Your task to perform on an android device: change the upload size in google photos Image 0: 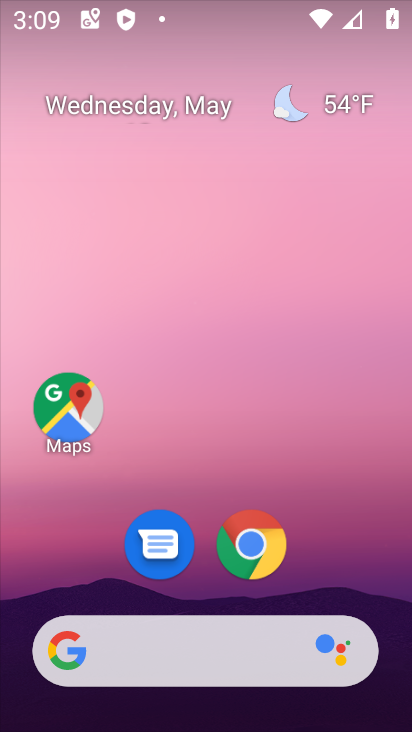
Step 0: drag from (354, 551) to (359, 140)
Your task to perform on an android device: change the upload size in google photos Image 1: 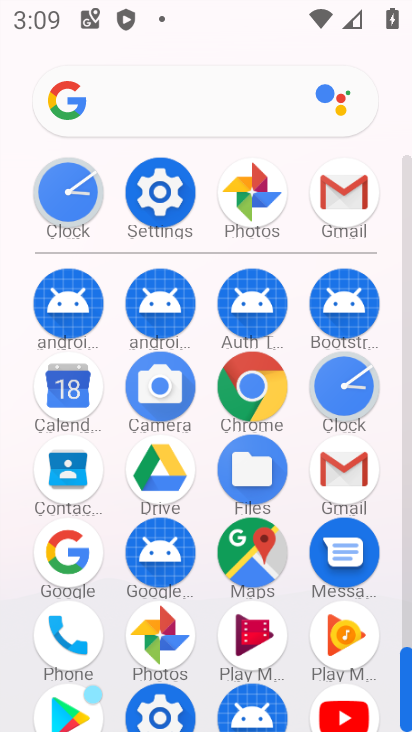
Step 1: click (266, 216)
Your task to perform on an android device: change the upload size in google photos Image 2: 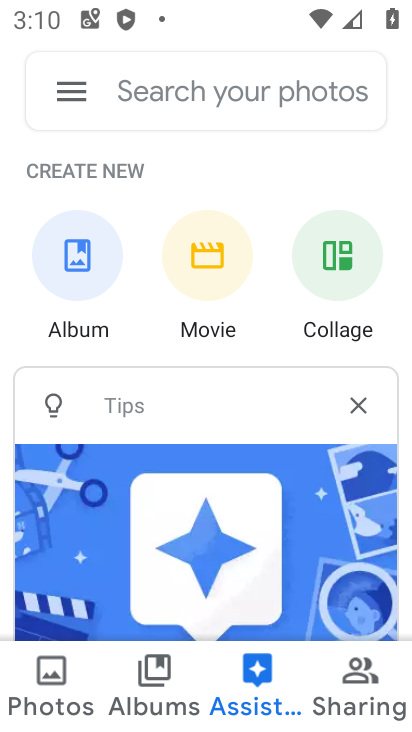
Step 2: click (76, 110)
Your task to perform on an android device: change the upload size in google photos Image 3: 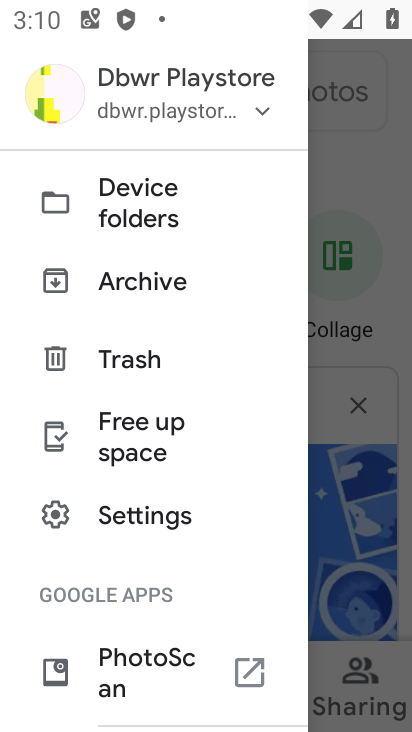
Step 3: click (143, 522)
Your task to perform on an android device: change the upload size in google photos Image 4: 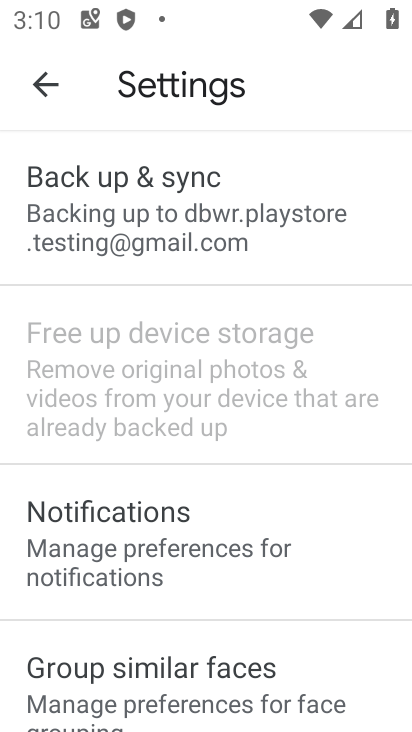
Step 4: click (184, 182)
Your task to perform on an android device: change the upload size in google photos Image 5: 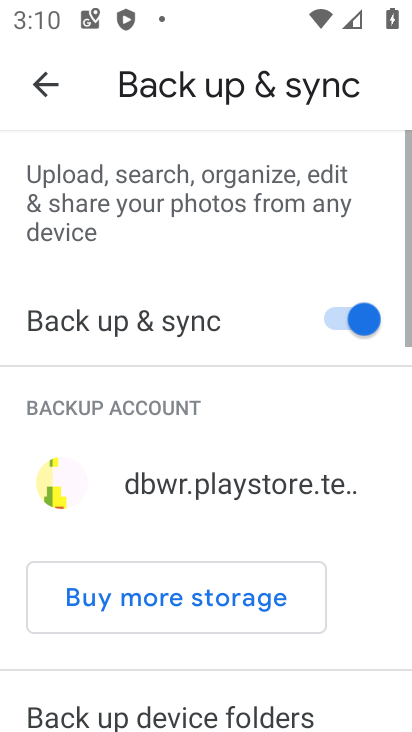
Step 5: drag from (165, 607) to (224, 202)
Your task to perform on an android device: change the upload size in google photos Image 6: 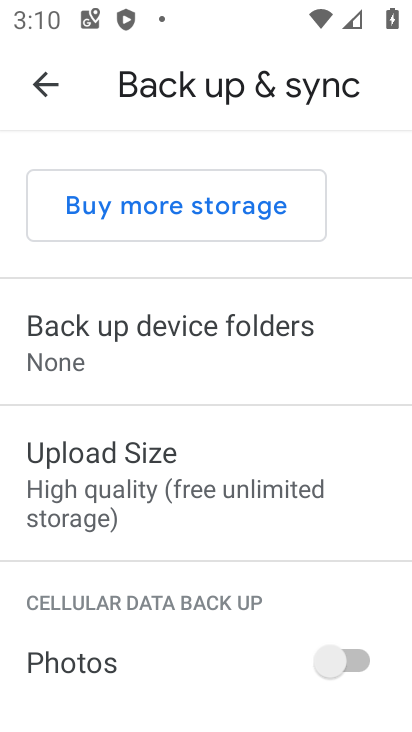
Step 6: click (166, 552)
Your task to perform on an android device: change the upload size in google photos Image 7: 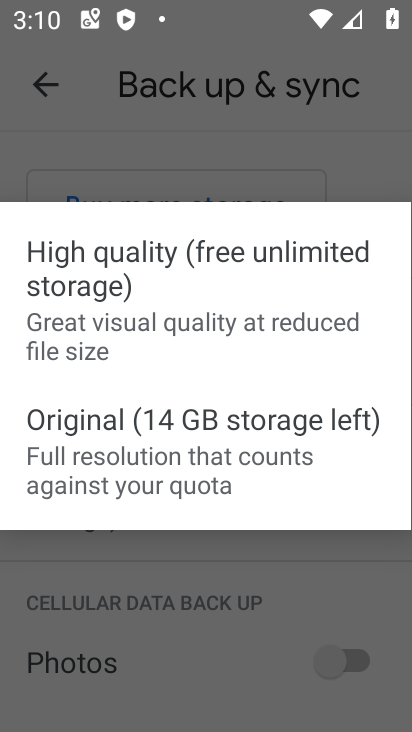
Step 7: click (225, 389)
Your task to perform on an android device: change the upload size in google photos Image 8: 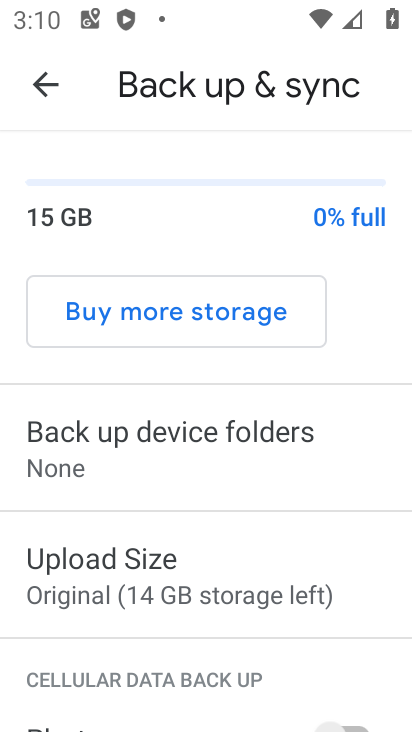
Step 8: task complete